Your task to perform on an android device: open app "Pinterest" (install if not already installed) Image 0: 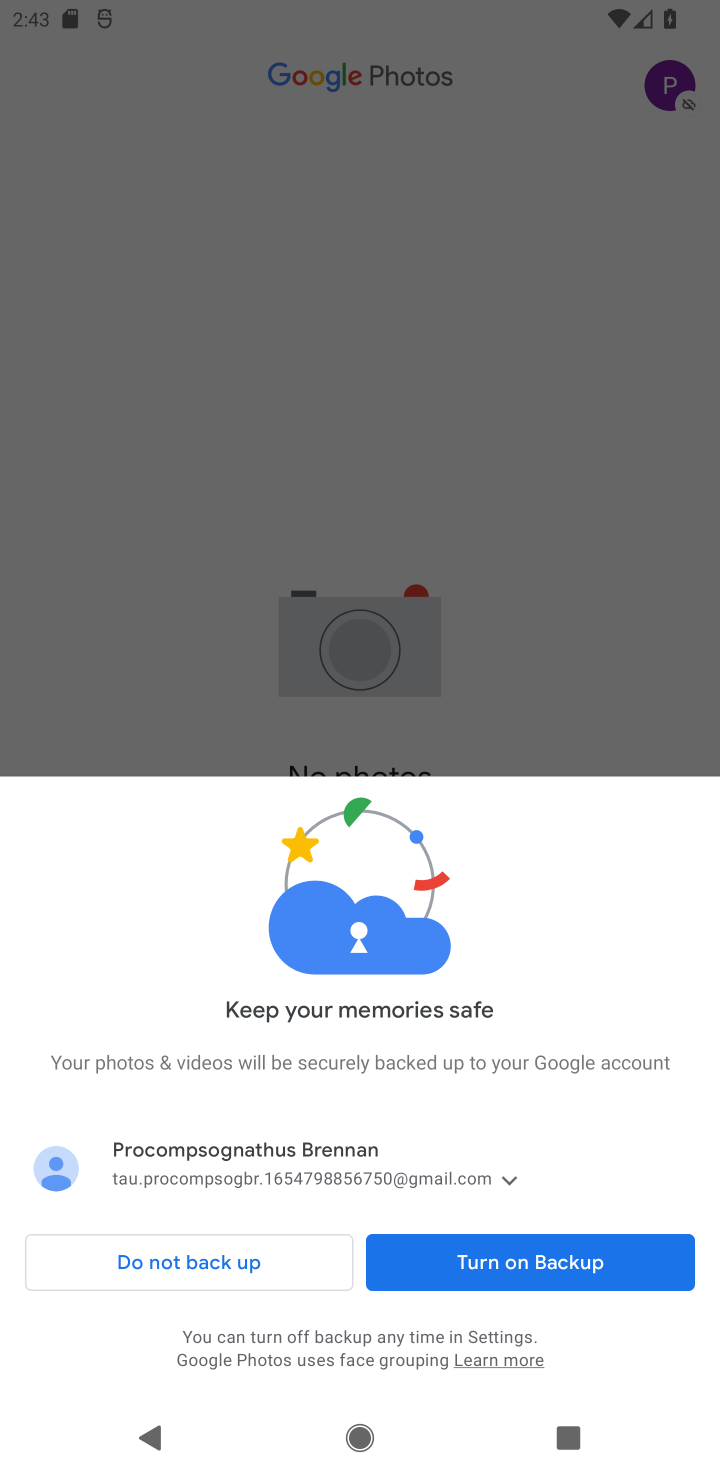
Step 0: press home button
Your task to perform on an android device: open app "Pinterest" (install if not already installed) Image 1: 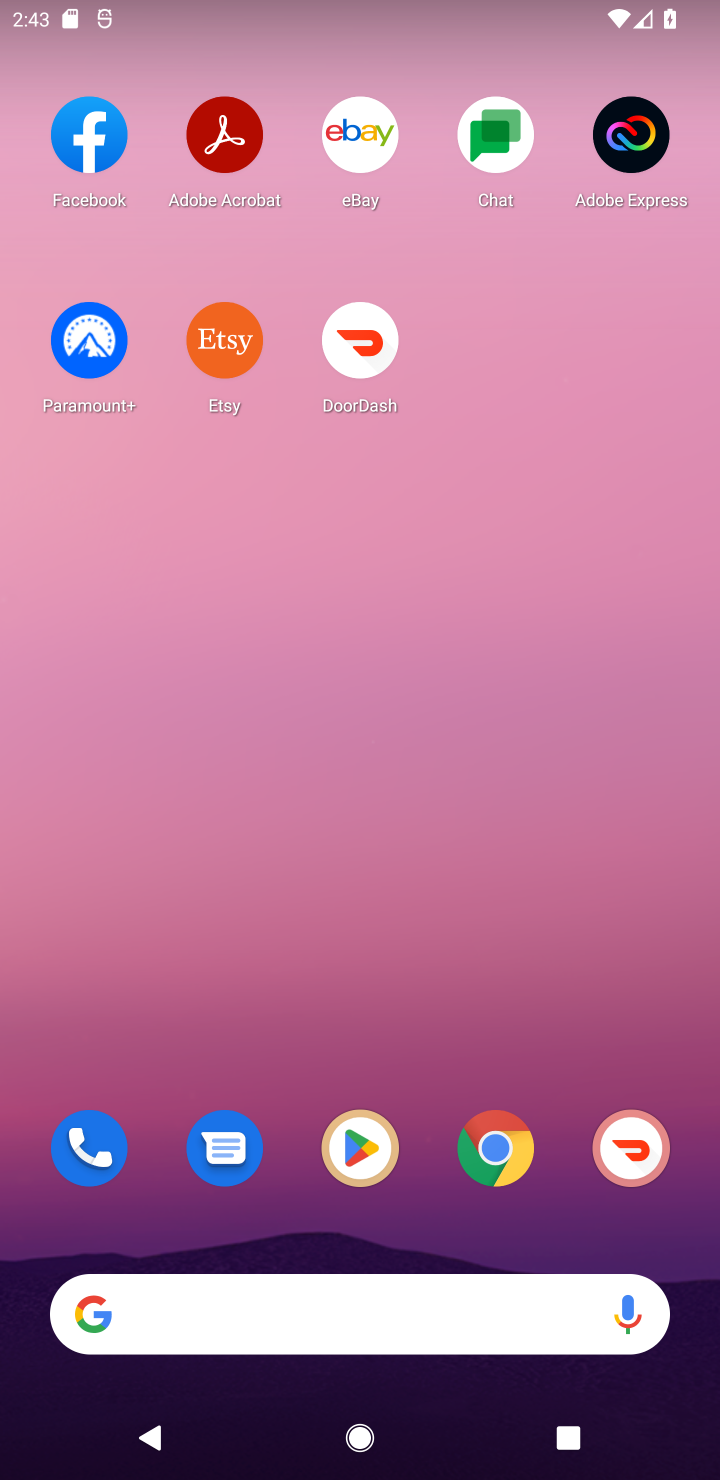
Step 1: drag from (243, 1204) to (440, 310)
Your task to perform on an android device: open app "Pinterest" (install if not already installed) Image 2: 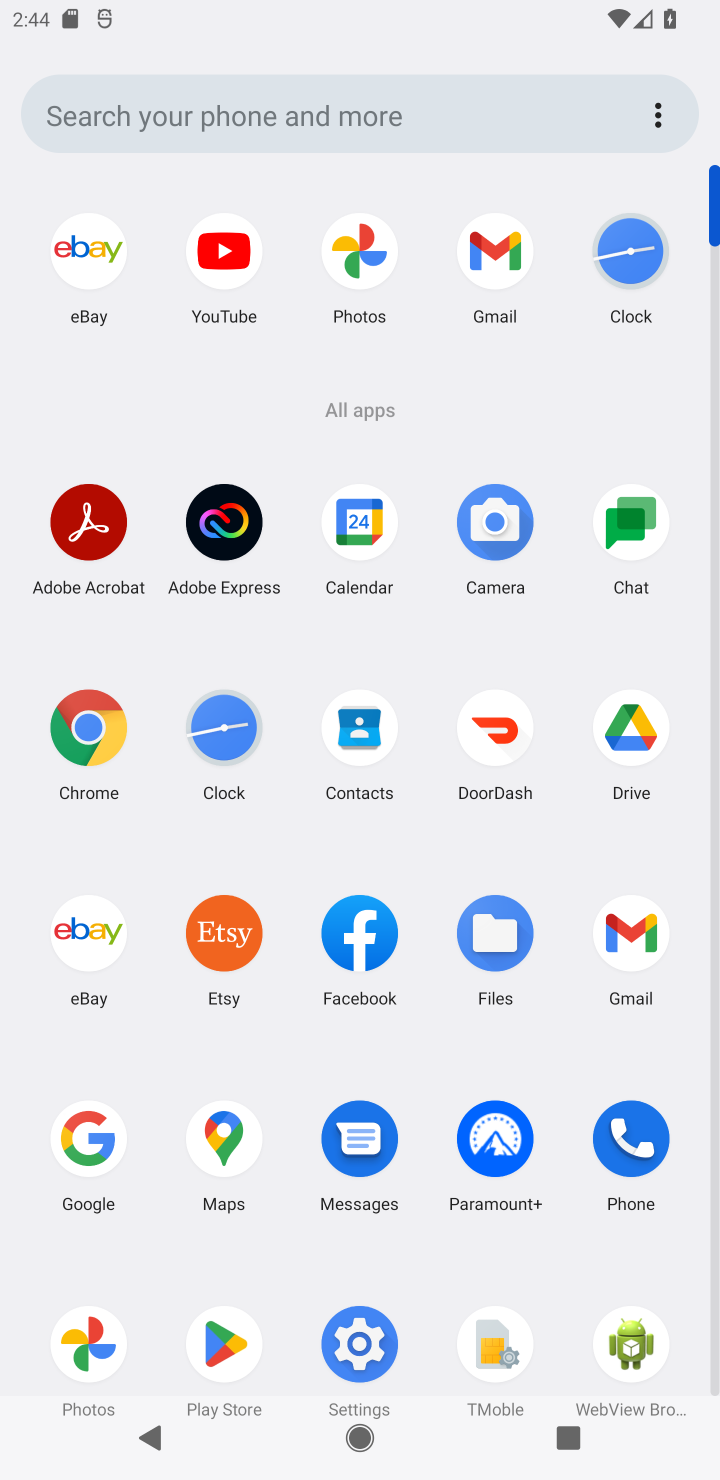
Step 2: click (225, 1339)
Your task to perform on an android device: open app "Pinterest" (install if not already installed) Image 3: 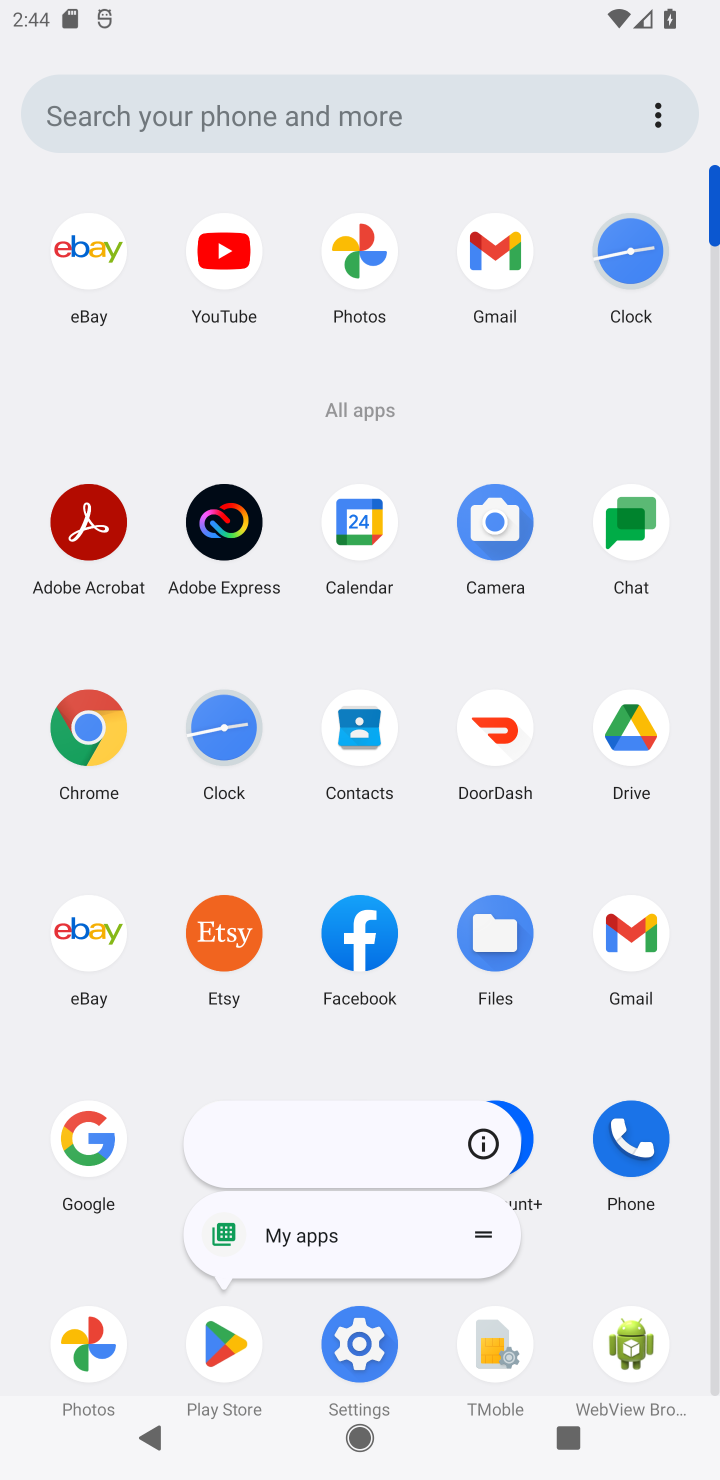
Step 3: click (231, 1331)
Your task to perform on an android device: open app "Pinterest" (install if not already installed) Image 4: 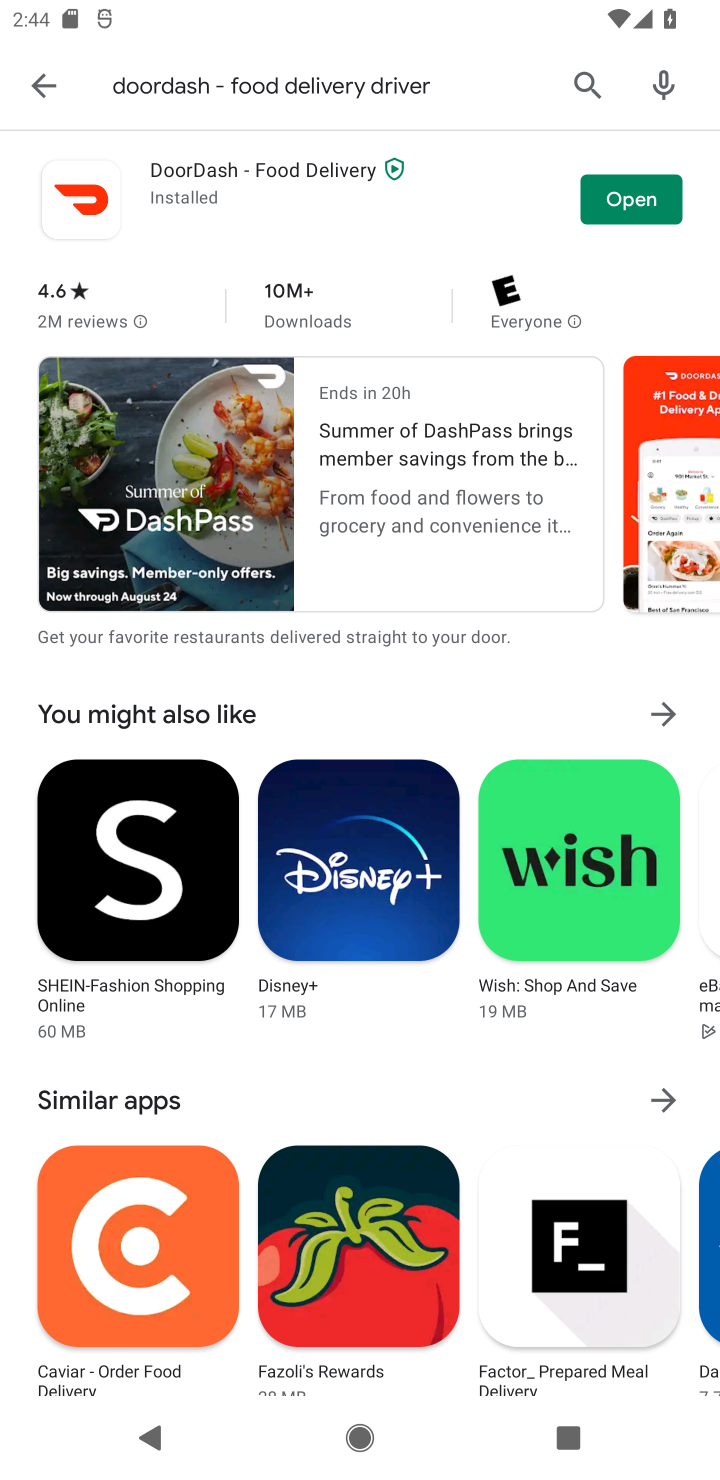
Step 4: click (65, 90)
Your task to perform on an android device: open app "Pinterest" (install if not already installed) Image 5: 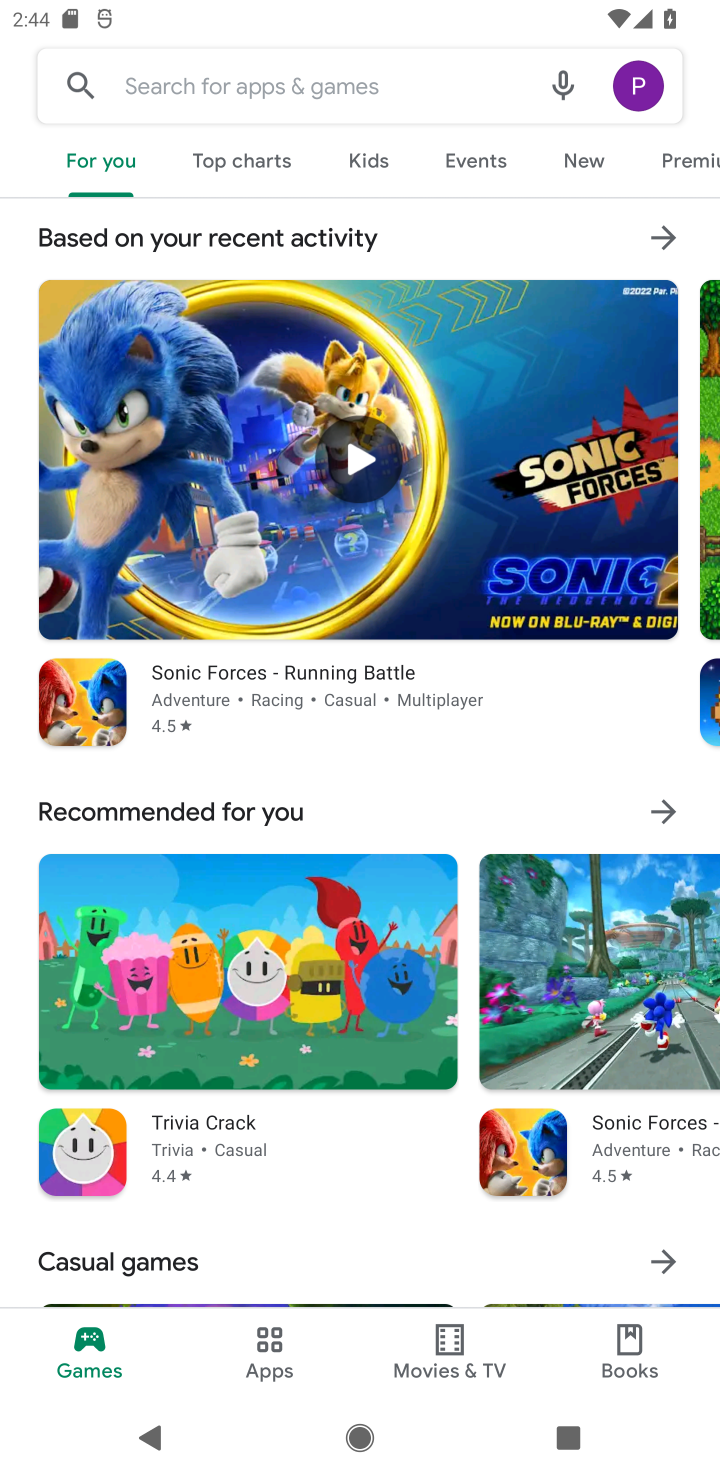
Step 5: click (321, 75)
Your task to perform on an android device: open app "Pinterest" (install if not already installed) Image 6: 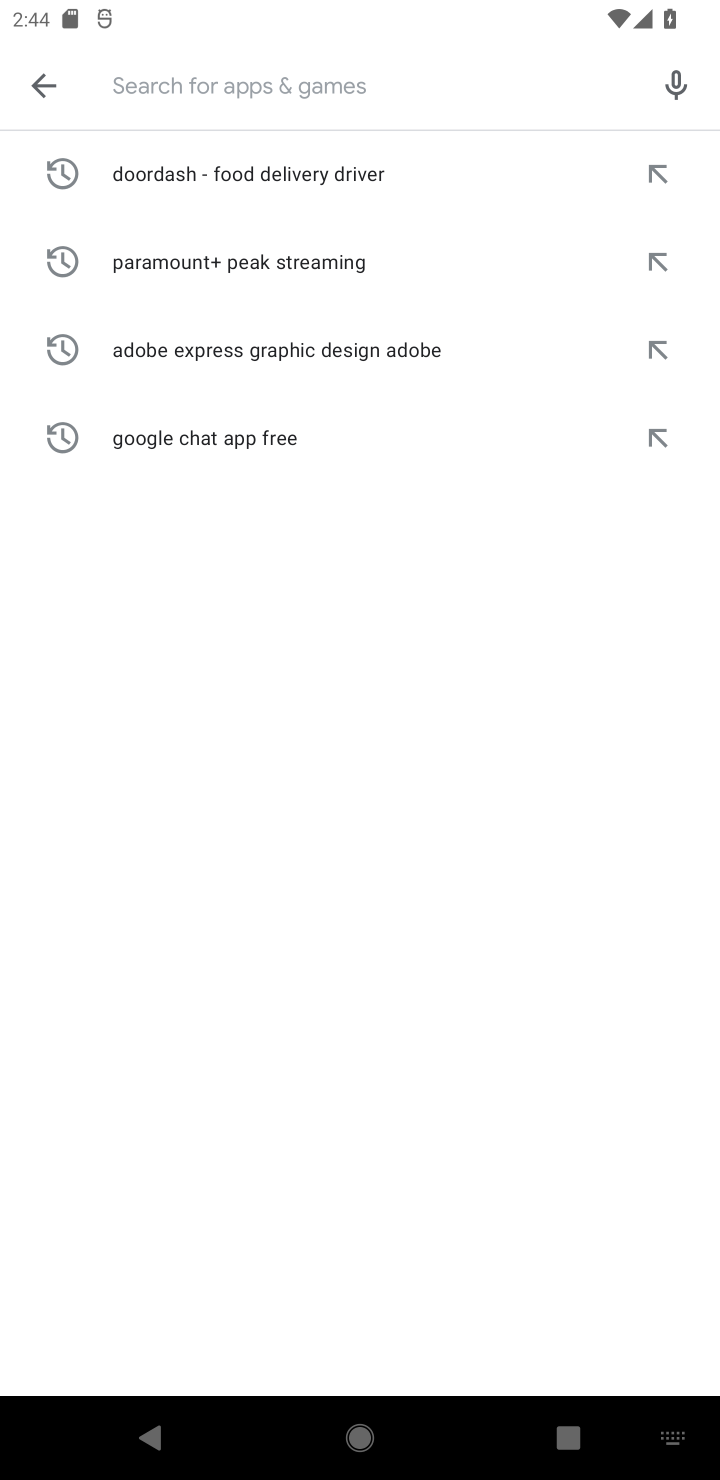
Step 6: type "Pinterest "
Your task to perform on an android device: open app "Pinterest" (install if not already installed) Image 7: 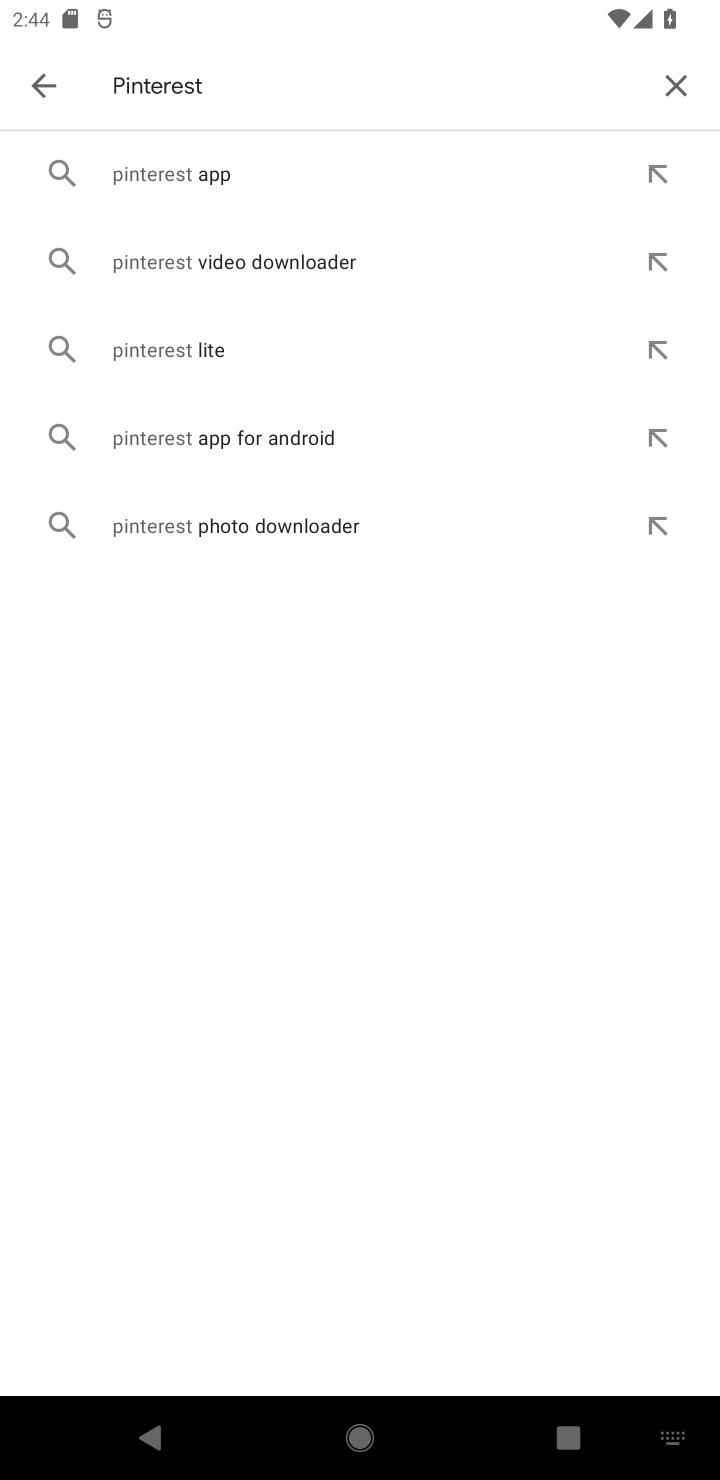
Step 7: click (184, 157)
Your task to perform on an android device: open app "Pinterest" (install if not already installed) Image 8: 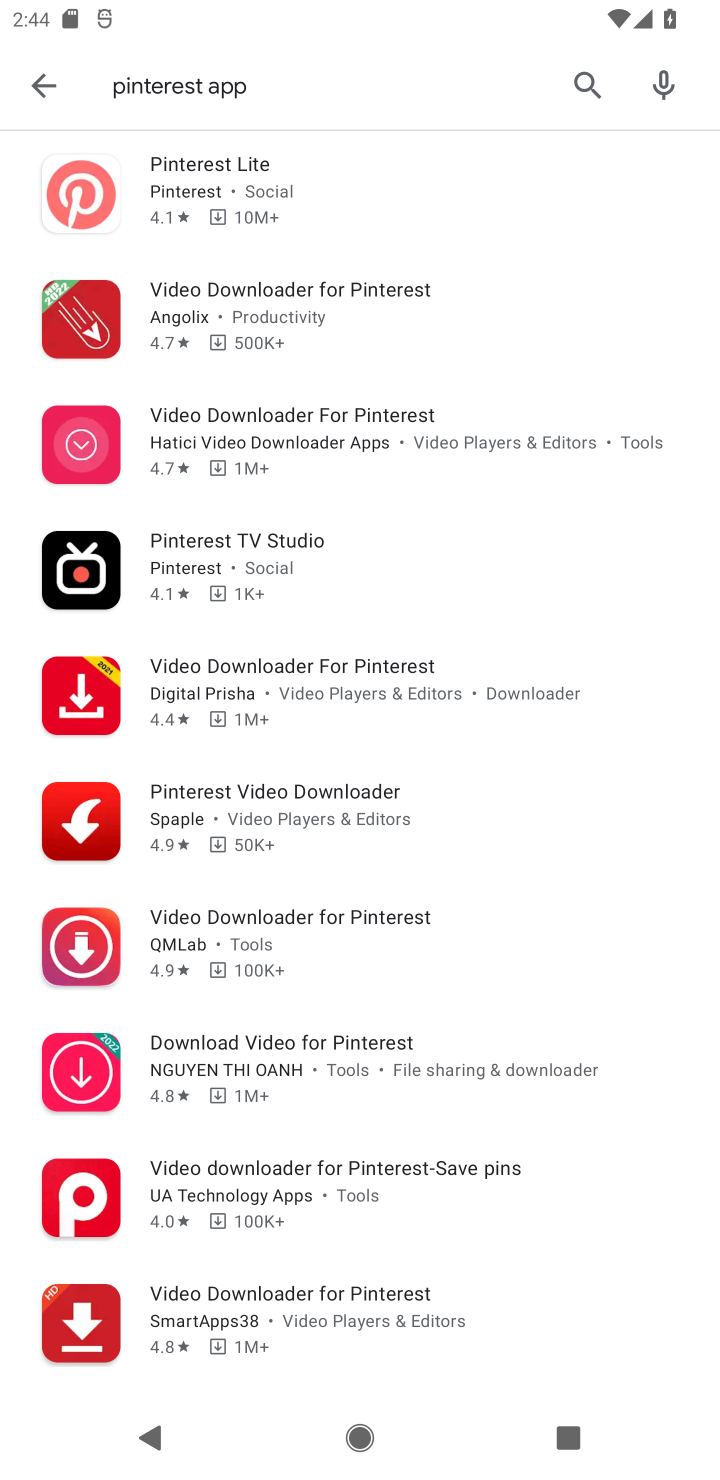
Step 8: click (228, 193)
Your task to perform on an android device: open app "Pinterest" (install if not already installed) Image 9: 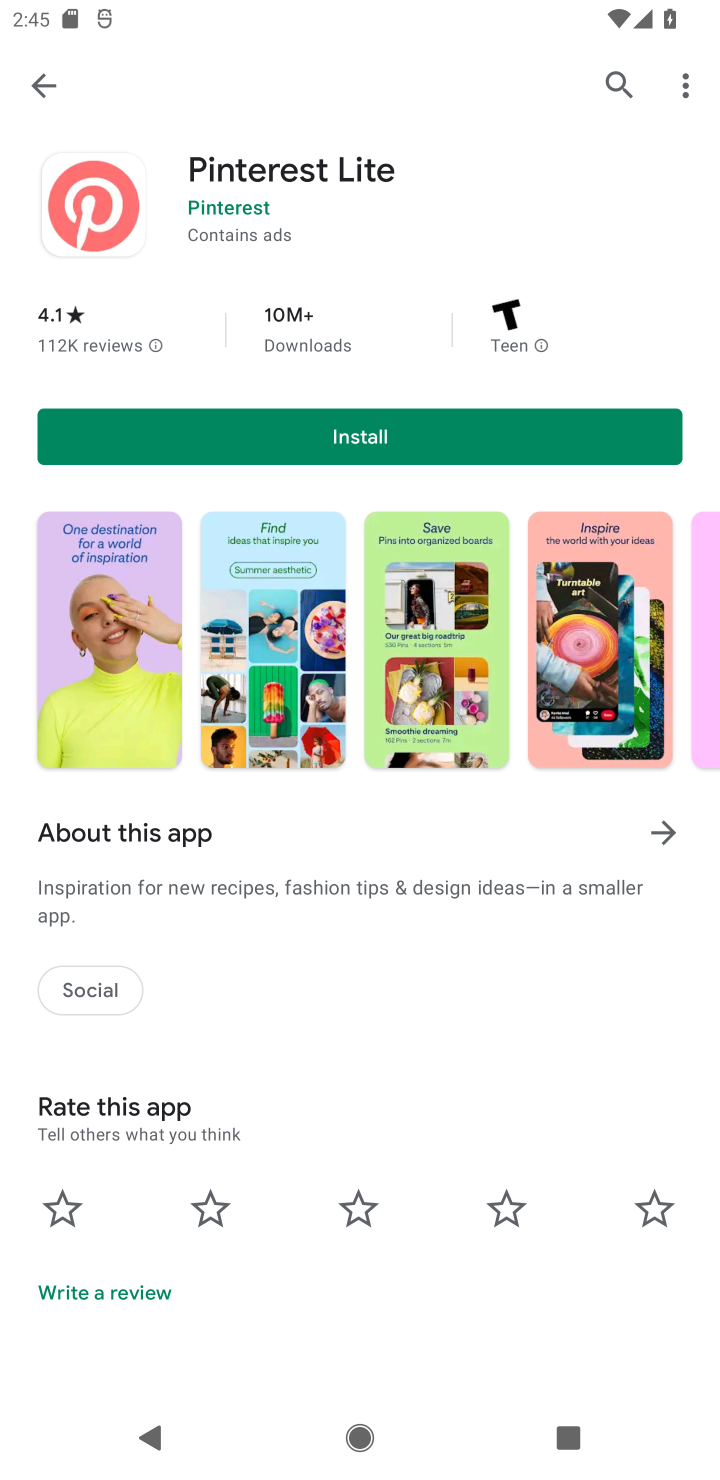
Step 9: click (325, 427)
Your task to perform on an android device: open app "Pinterest" (install if not already installed) Image 10: 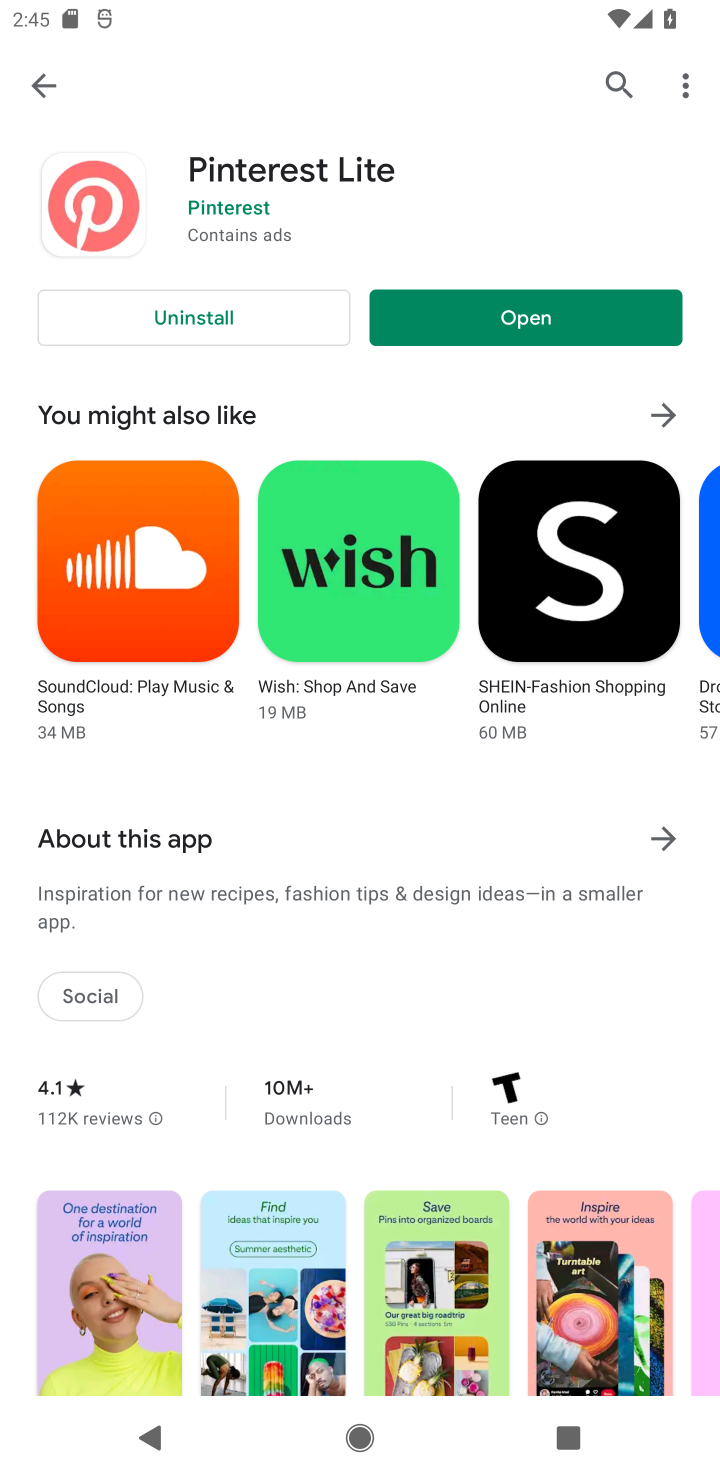
Step 10: click (515, 299)
Your task to perform on an android device: open app "Pinterest" (install if not already installed) Image 11: 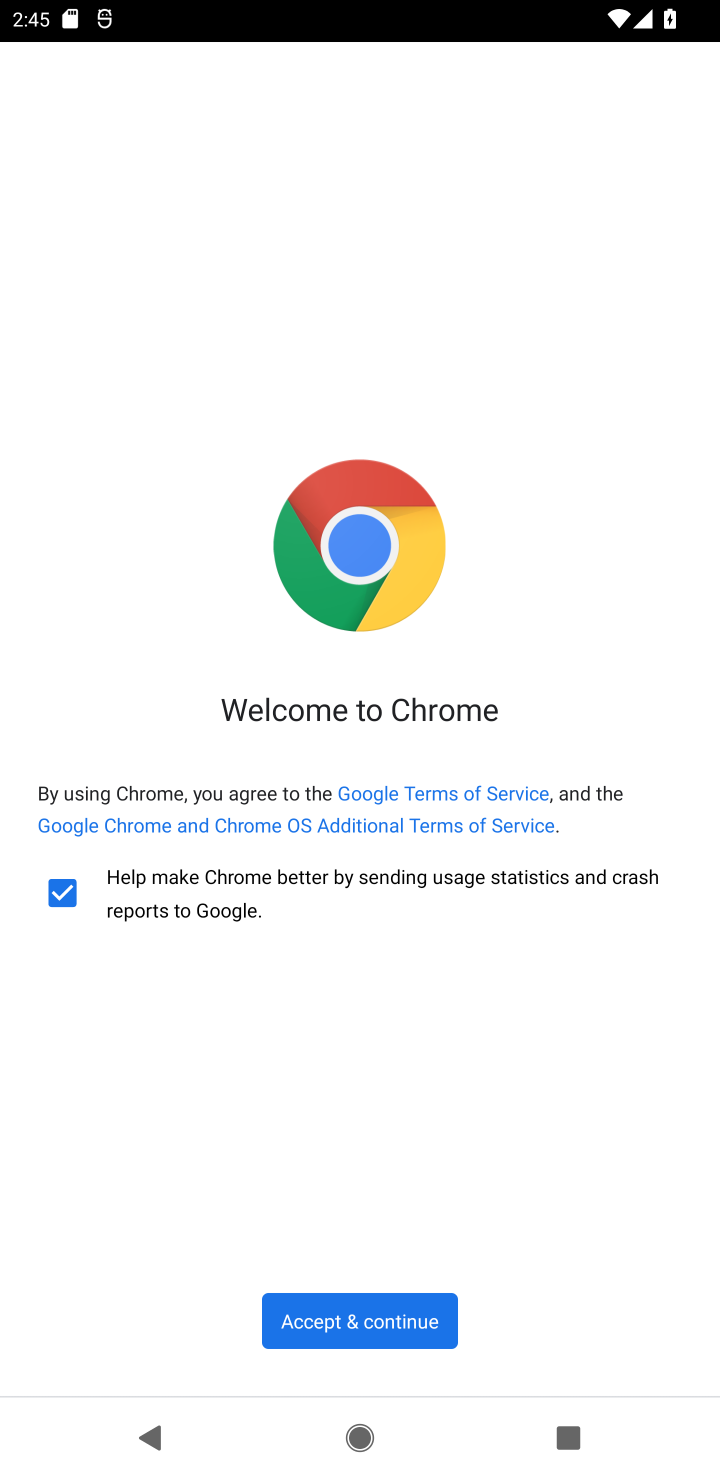
Step 11: click (346, 1320)
Your task to perform on an android device: open app "Pinterest" (install if not already installed) Image 12: 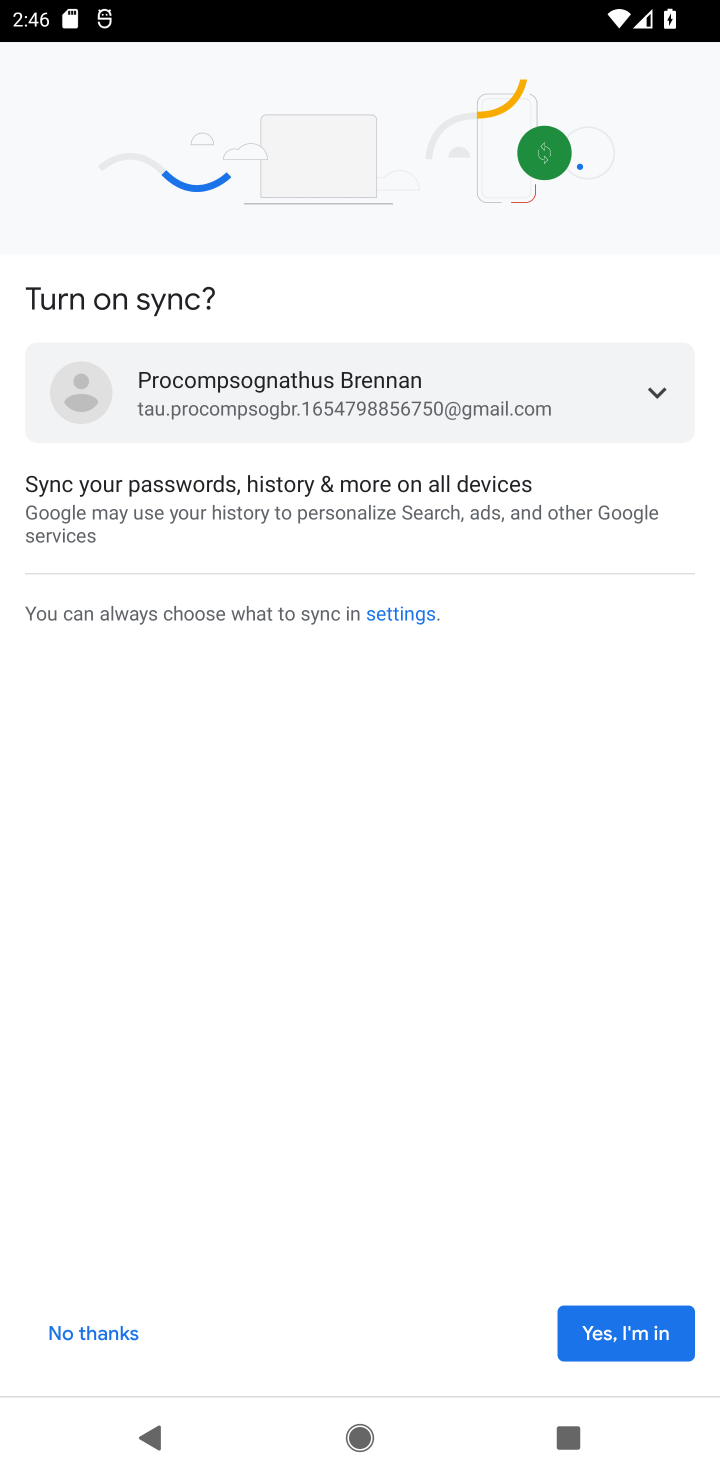
Step 12: task complete